Your task to perform on an android device: Open settings on Google Maps Image 0: 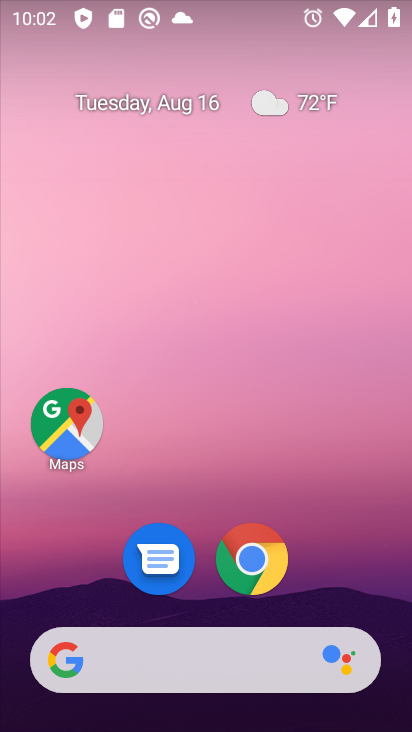
Step 0: click (64, 424)
Your task to perform on an android device: Open settings on Google Maps Image 1: 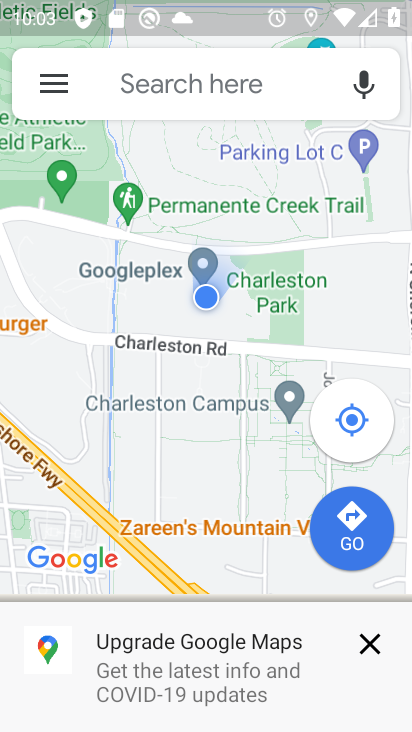
Step 1: click (55, 83)
Your task to perform on an android device: Open settings on Google Maps Image 2: 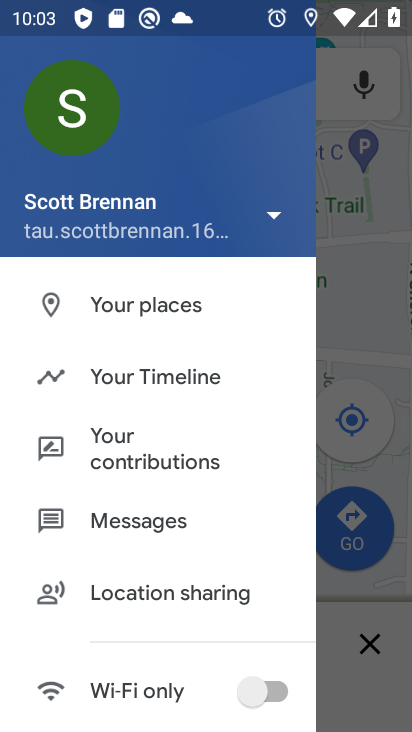
Step 2: drag from (141, 543) to (218, 413)
Your task to perform on an android device: Open settings on Google Maps Image 3: 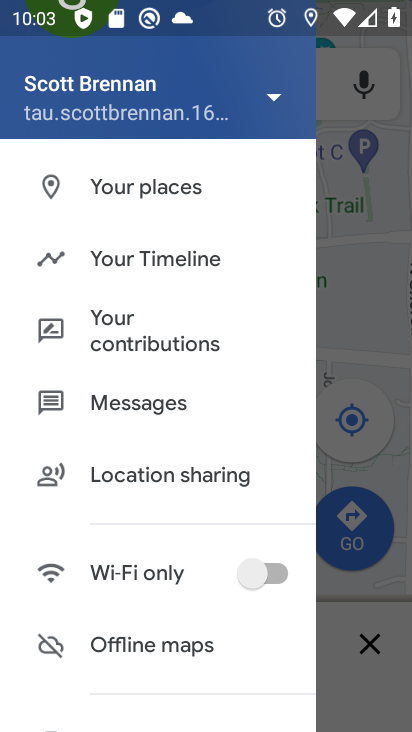
Step 3: drag from (123, 600) to (199, 485)
Your task to perform on an android device: Open settings on Google Maps Image 4: 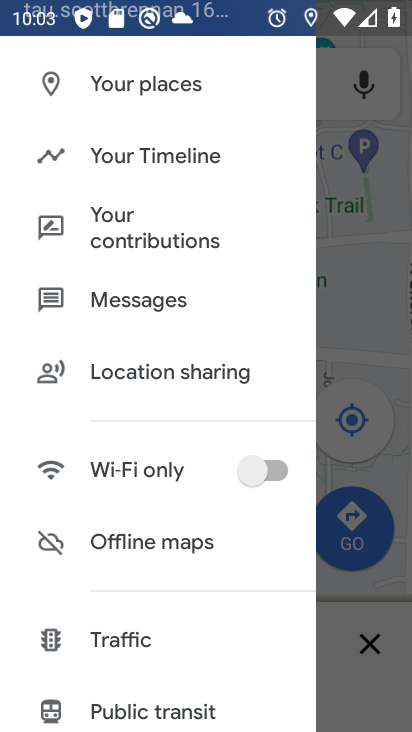
Step 4: drag from (112, 656) to (185, 501)
Your task to perform on an android device: Open settings on Google Maps Image 5: 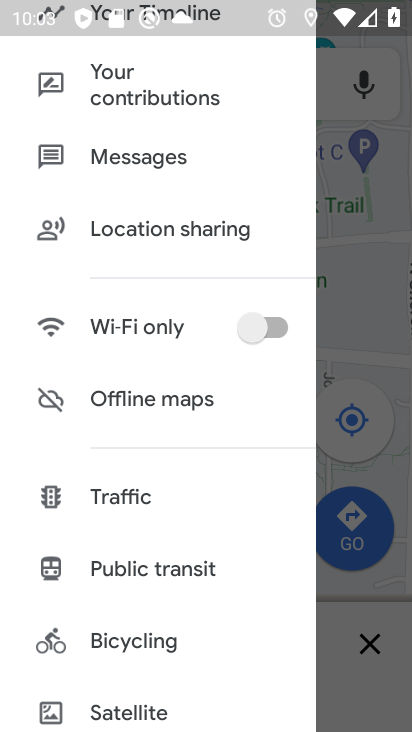
Step 5: drag from (95, 661) to (190, 537)
Your task to perform on an android device: Open settings on Google Maps Image 6: 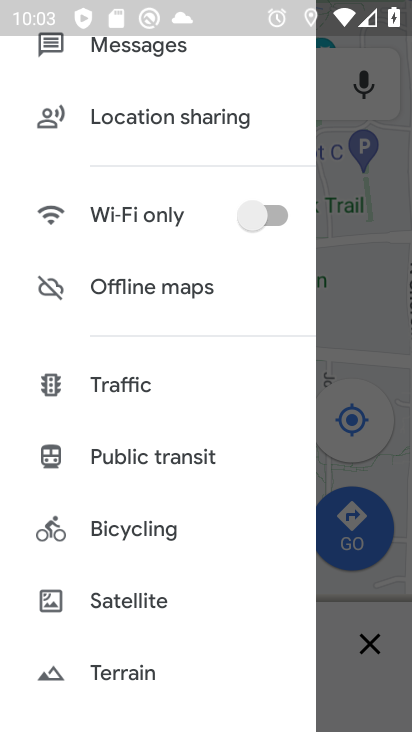
Step 6: drag from (88, 650) to (170, 536)
Your task to perform on an android device: Open settings on Google Maps Image 7: 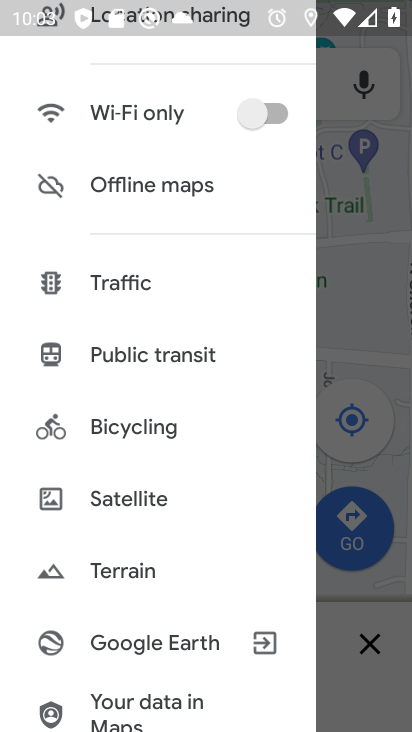
Step 7: drag from (89, 673) to (183, 535)
Your task to perform on an android device: Open settings on Google Maps Image 8: 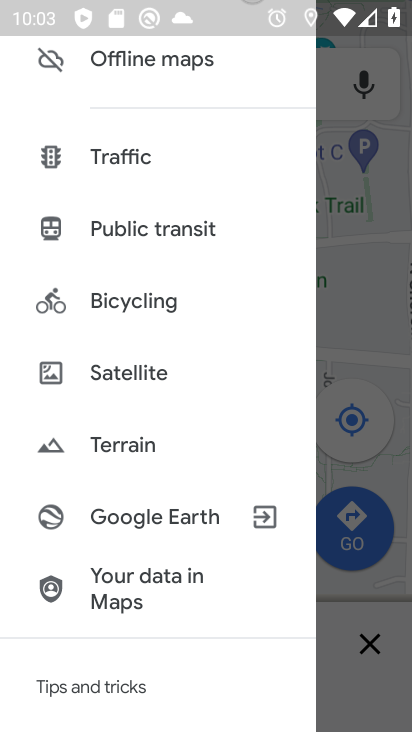
Step 8: drag from (87, 662) to (233, 468)
Your task to perform on an android device: Open settings on Google Maps Image 9: 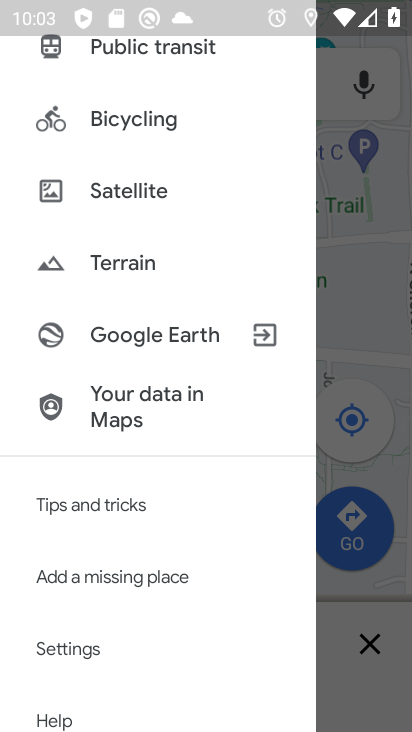
Step 9: click (80, 657)
Your task to perform on an android device: Open settings on Google Maps Image 10: 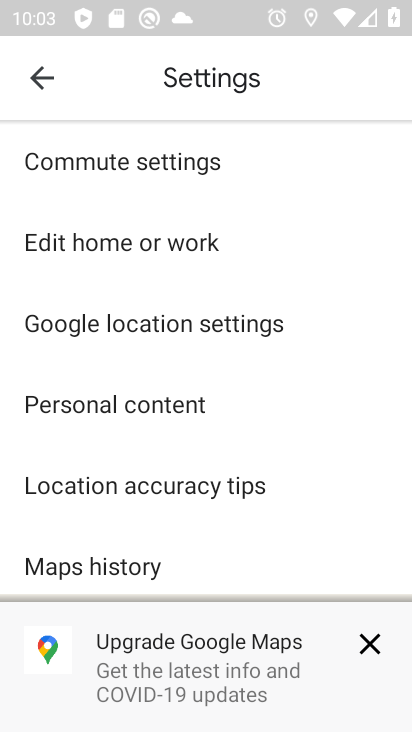
Step 10: task complete